Your task to perform on an android device: add a contact Image 0: 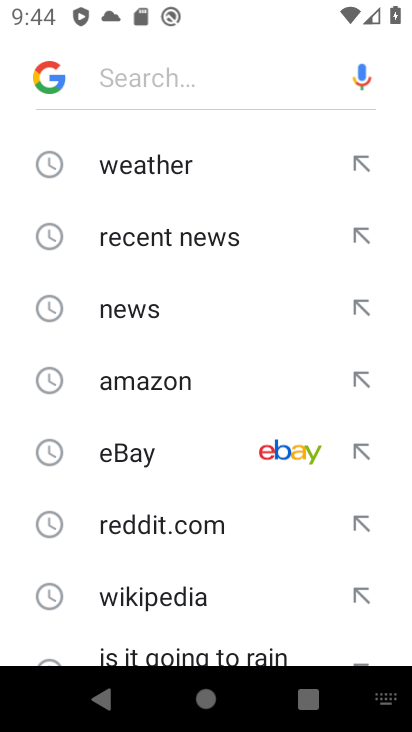
Step 0: press back button
Your task to perform on an android device: add a contact Image 1: 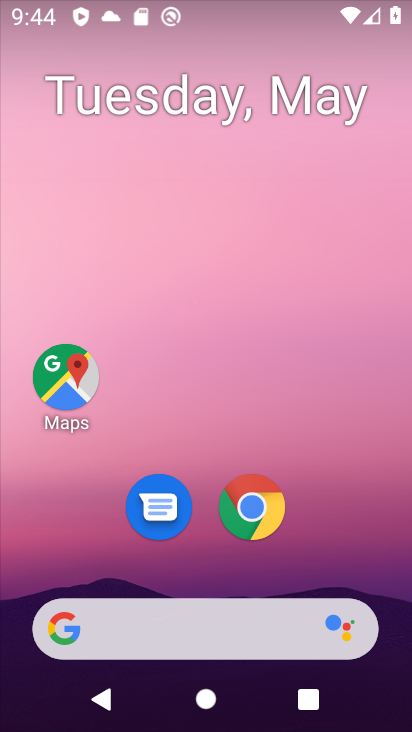
Step 1: drag from (333, 568) to (272, 111)
Your task to perform on an android device: add a contact Image 2: 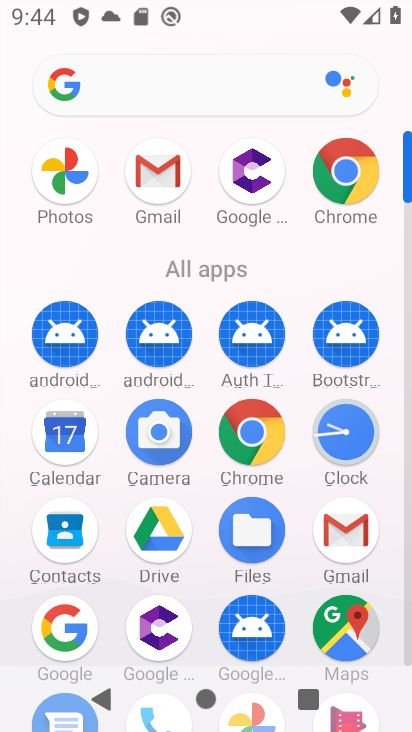
Step 2: click (408, 656)
Your task to perform on an android device: add a contact Image 3: 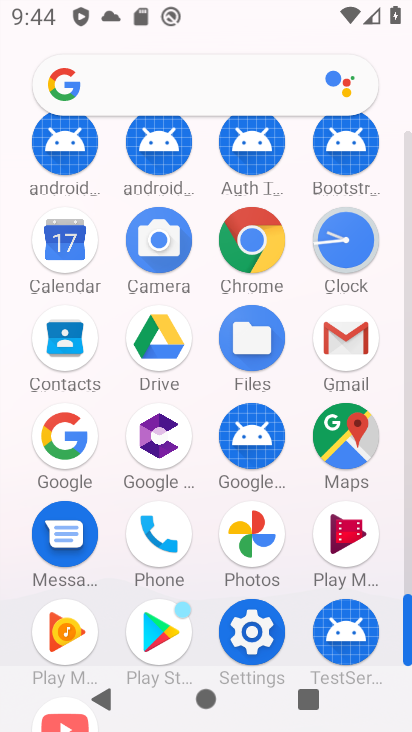
Step 3: click (164, 547)
Your task to perform on an android device: add a contact Image 4: 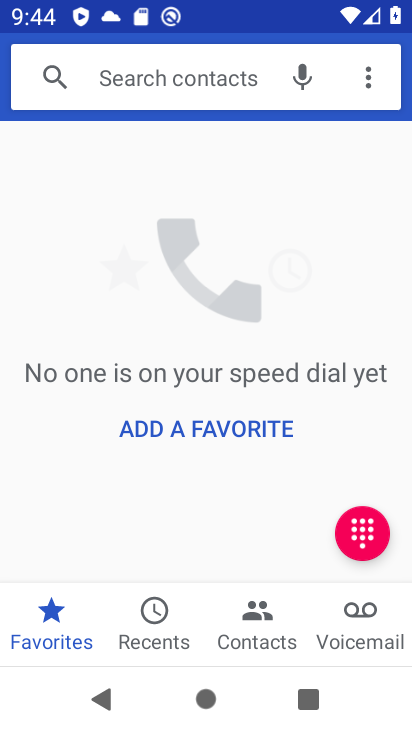
Step 4: press home button
Your task to perform on an android device: add a contact Image 5: 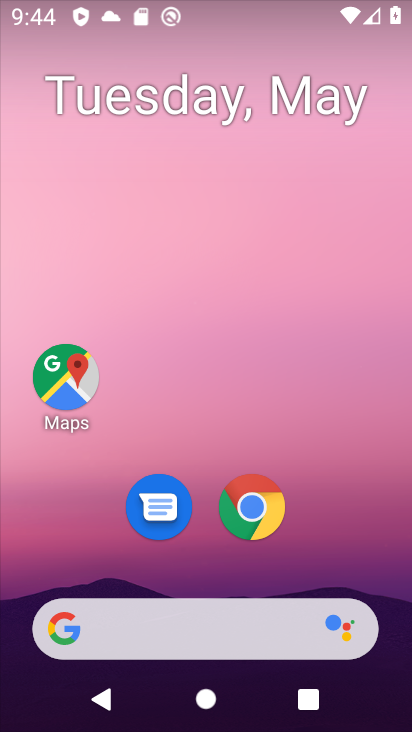
Step 5: drag from (336, 502) to (248, 187)
Your task to perform on an android device: add a contact Image 6: 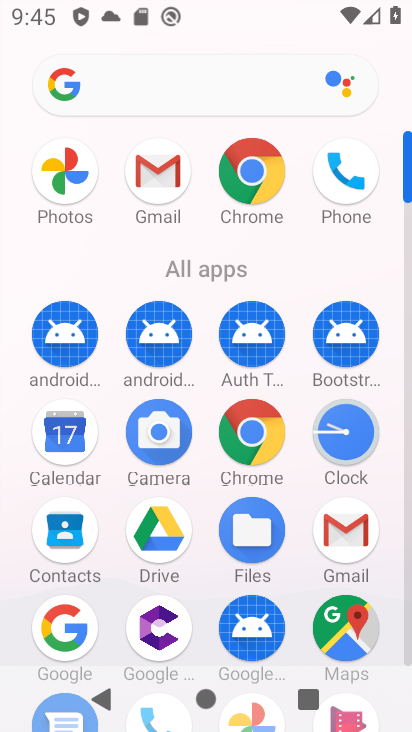
Step 6: click (65, 543)
Your task to perform on an android device: add a contact Image 7: 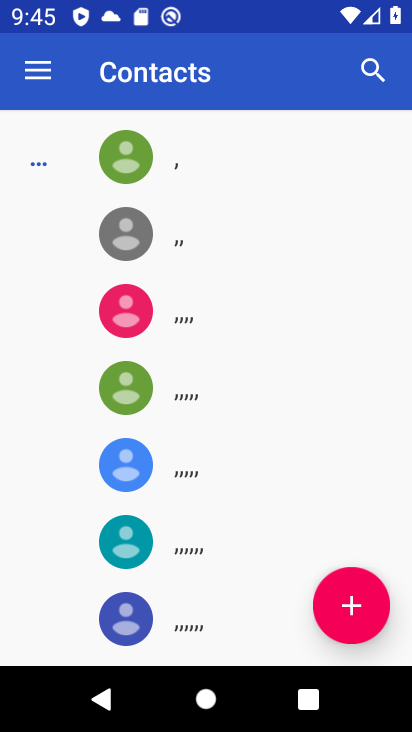
Step 7: click (346, 603)
Your task to perform on an android device: add a contact Image 8: 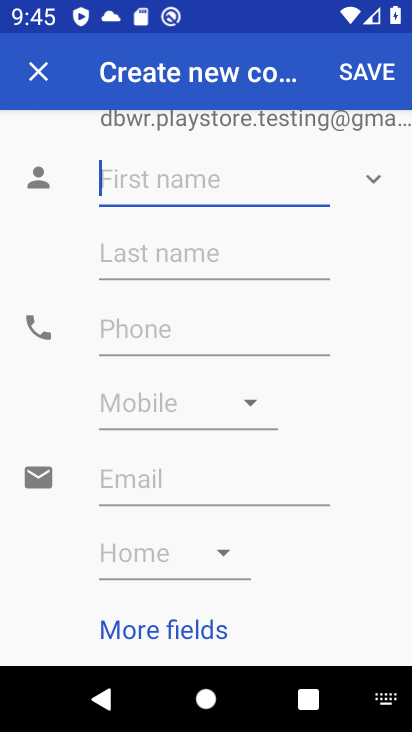
Step 8: click (179, 188)
Your task to perform on an android device: add a contact Image 9: 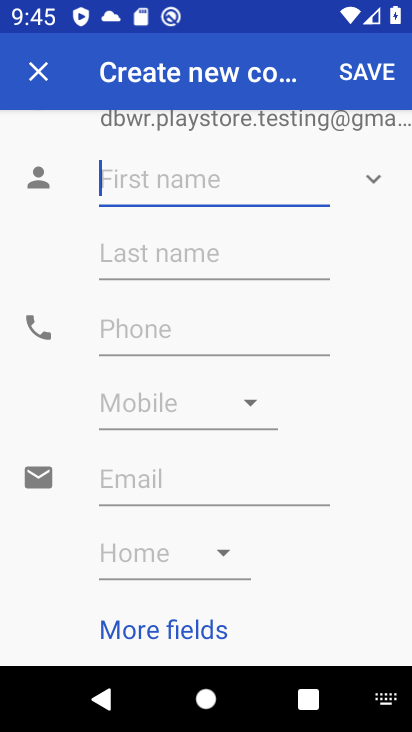
Step 9: type "khgkhg"
Your task to perform on an android device: add a contact Image 10: 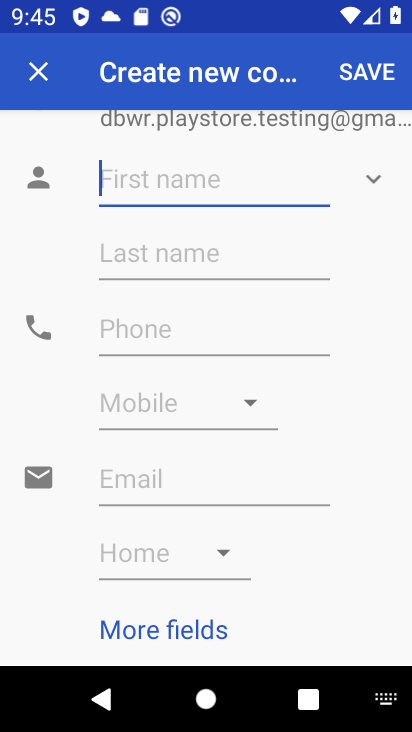
Step 10: click (135, 336)
Your task to perform on an android device: add a contact Image 11: 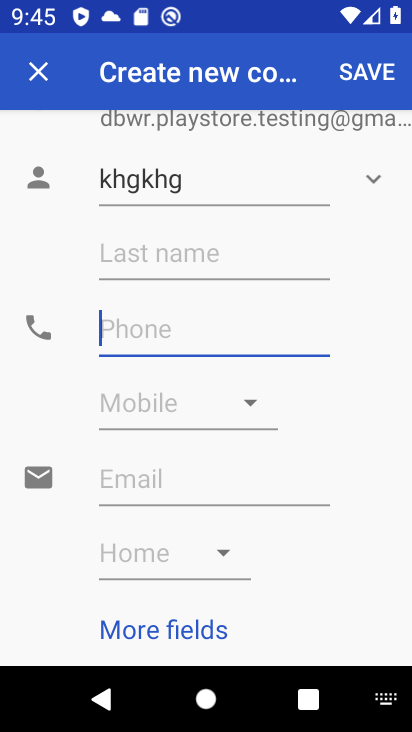
Step 11: type "697696"
Your task to perform on an android device: add a contact Image 12: 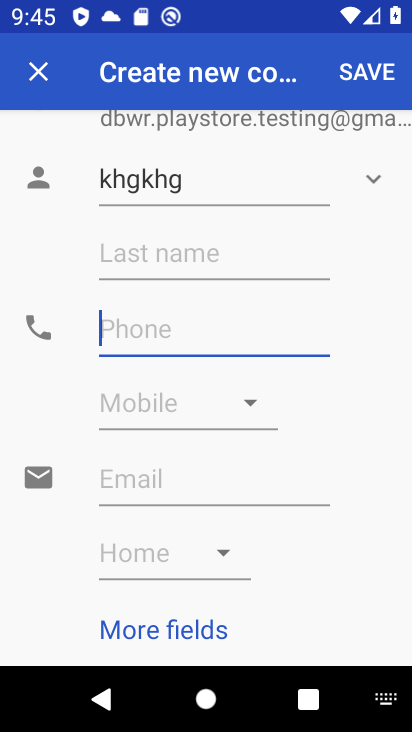
Step 12: click (393, 562)
Your task to perform on an android device: add a contact Image 13: 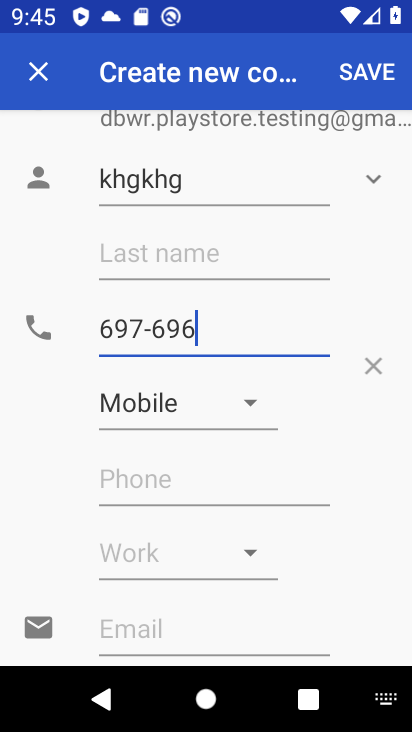
Step 13: click (383, 71)
Your task to perform on an android device: add a contact Image 14: 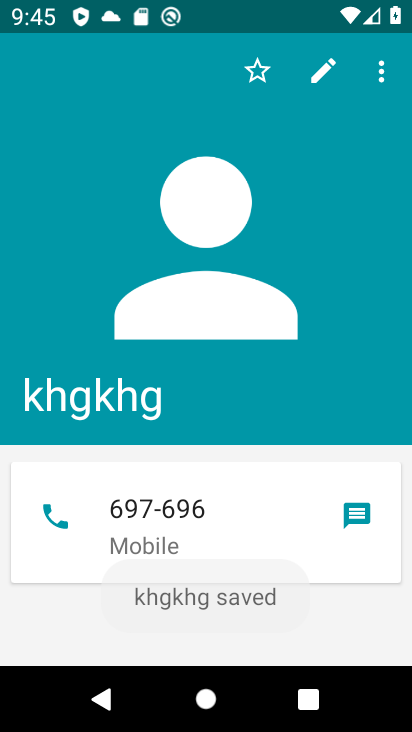
Step 14: task complete